Your task to perform on an android device: delete the emails in spam in the gmail app Image 0: 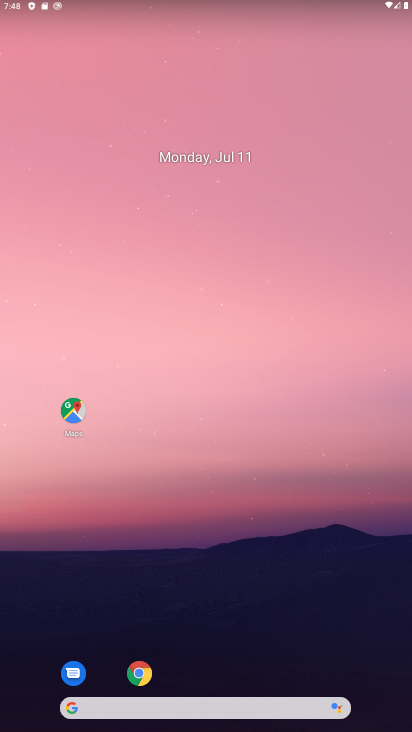
Step 0: drag from (237, 674) to (291, 149)
Your task to perform on an android device: delete the emails in spam in the gmail app Image 1: 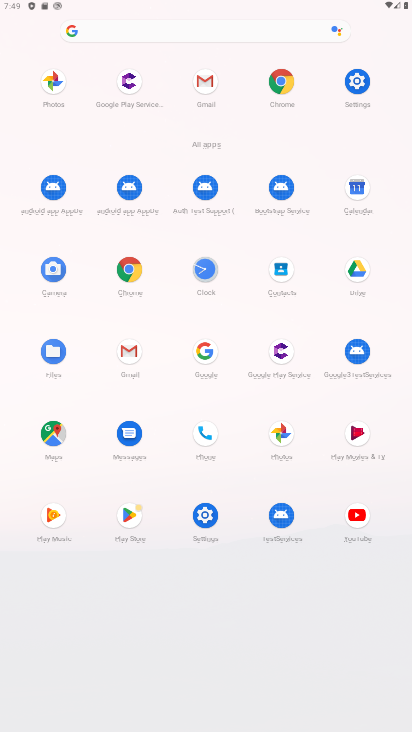
Step 1: click (125, 343)
Your task to perform on an android device: delete the emails in spam in the gmail app Image 2: 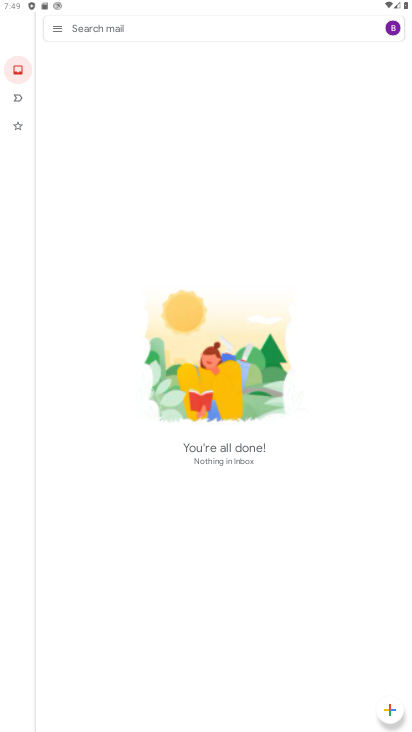
Step 2: click (61, 24)
Your task to perform on an android device: delete the emails in spam in the gmail app Image 3: 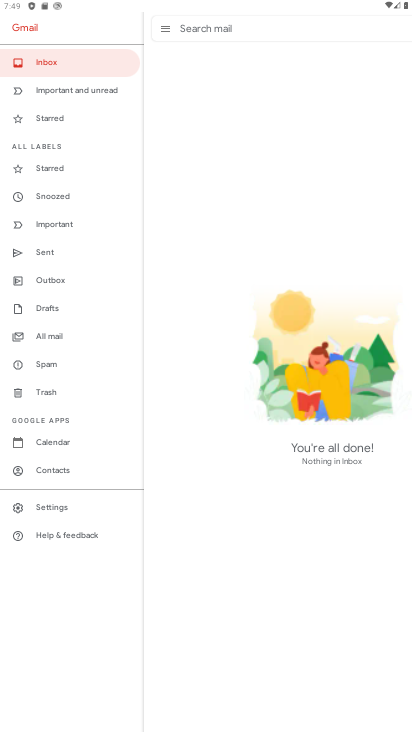
Step 3: click (54, 366)
Your task to perform on an android device: delete the emails in spam in the gmail app Image 4: 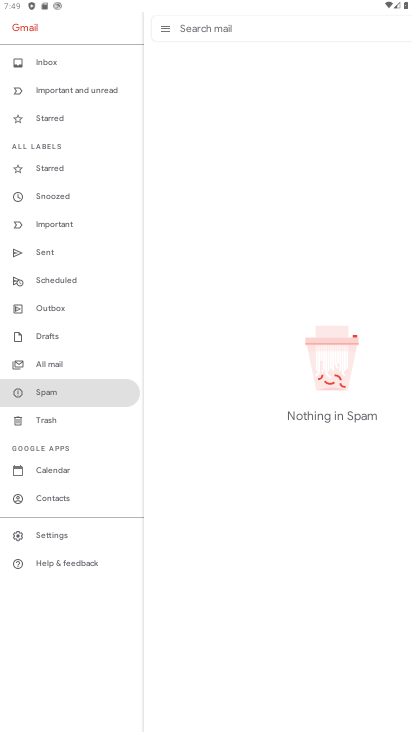
Step 4: task complete